Your task to perform on an android device: set the timer Image 0: 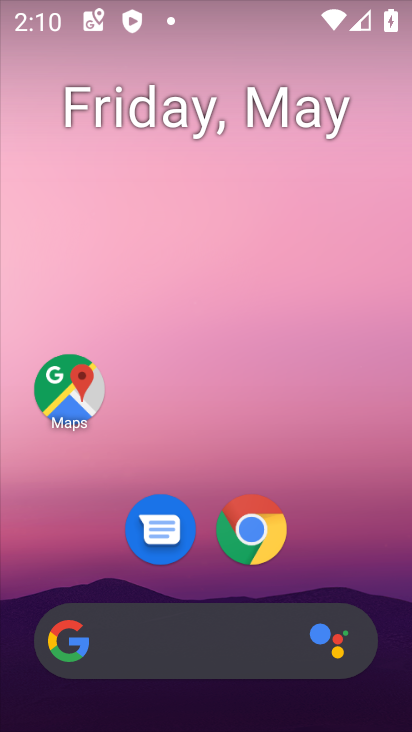
Step 0: drag from (352, 549) to (273, 34)
Your task to perform on an android device: set the timer Image 1: 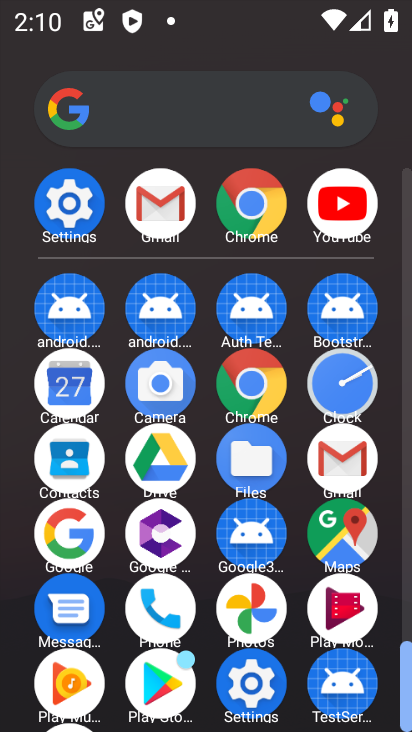
Step 1: click (328, 402)
Your task to perform on an android device: set the timer Image 2: 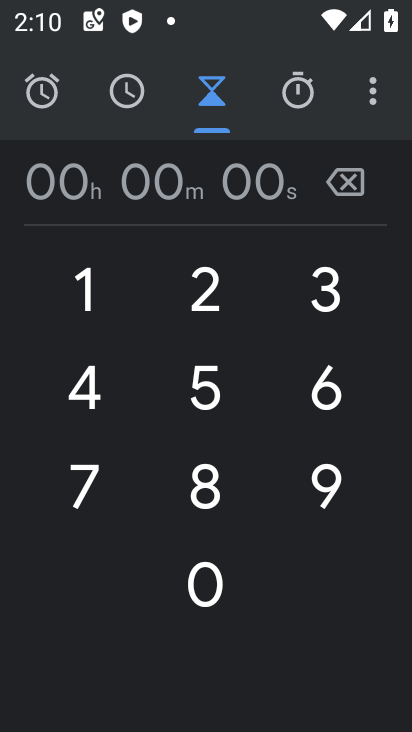
Step 2: task complete